Your task to perform on an android device: turn off location history Image 0: 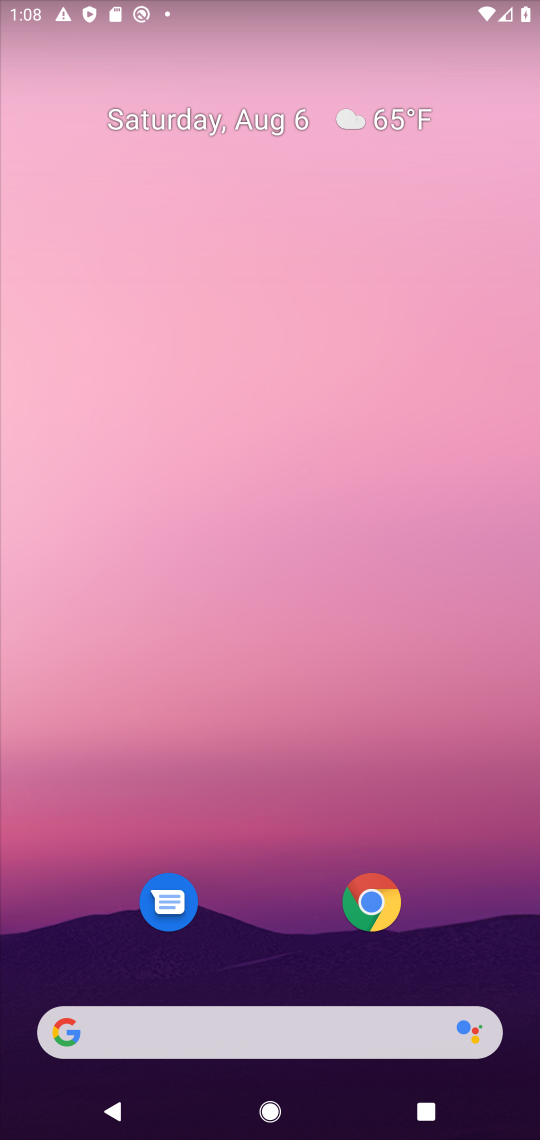
Step 0: drag from (267, 830) to (231, 40)
Your task to perform on an android device: turn off location history Image 1: 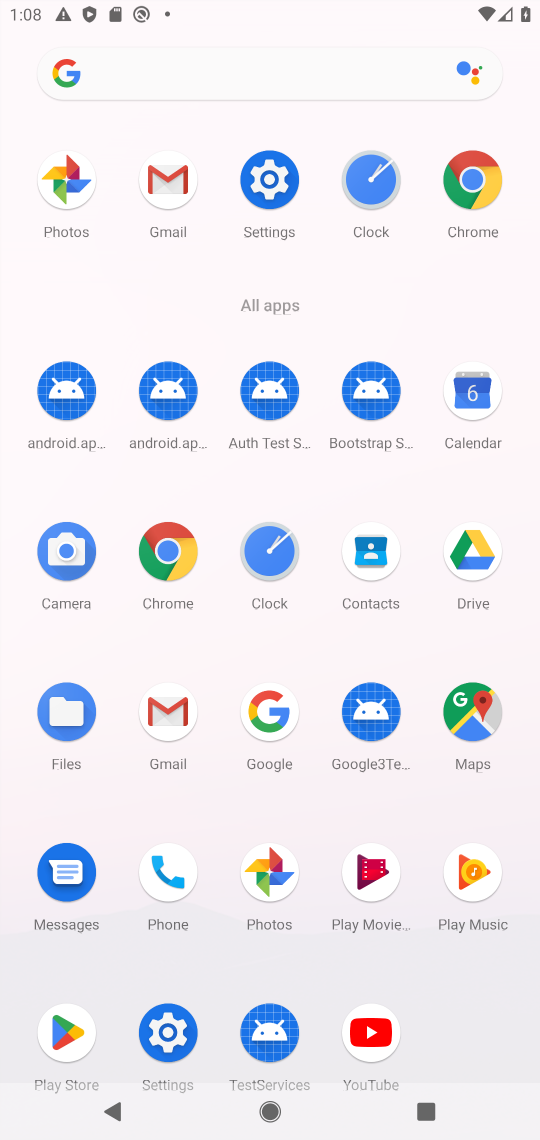
Step 1: click (471, 720)
Your task to perform on an android device: turn off location history Image 2: 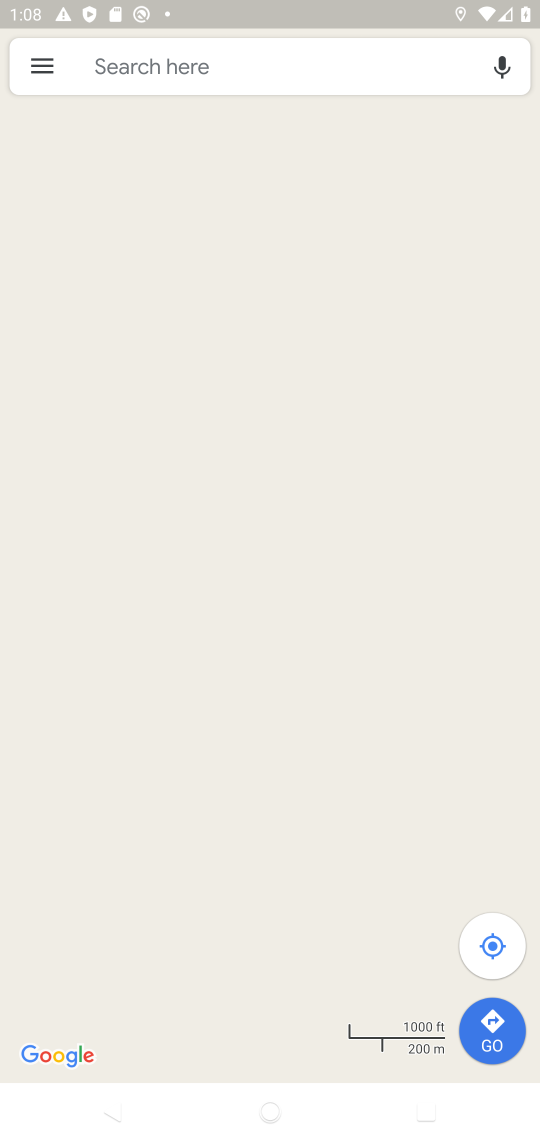
Step 2: click (37, 53)
Your task to perform on an android device: turn off location history Image 3: 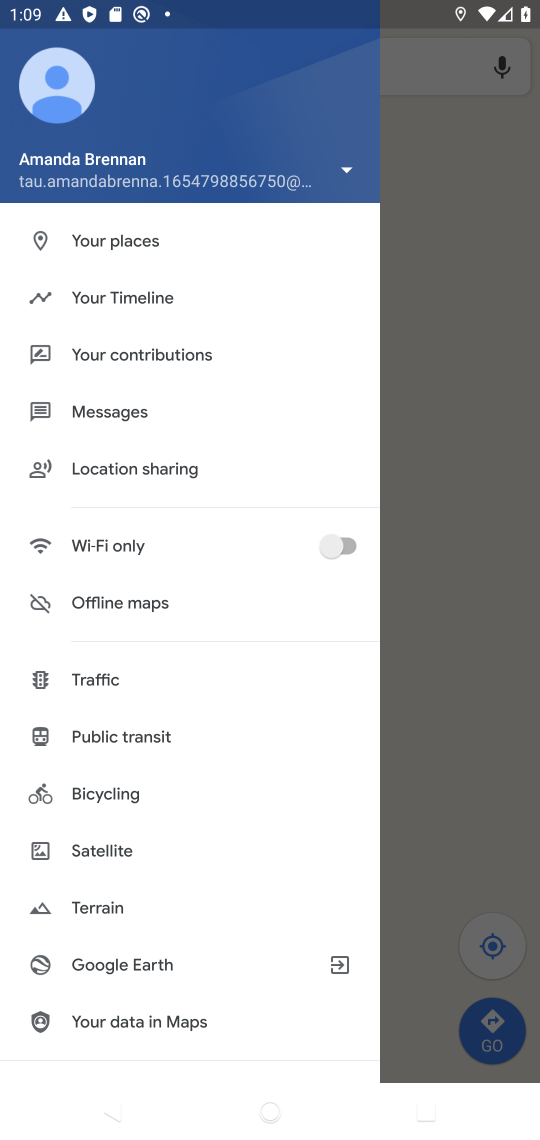
Step 3: click (127, 293)
Your task to perform on an android device: turn off location history Image 4: 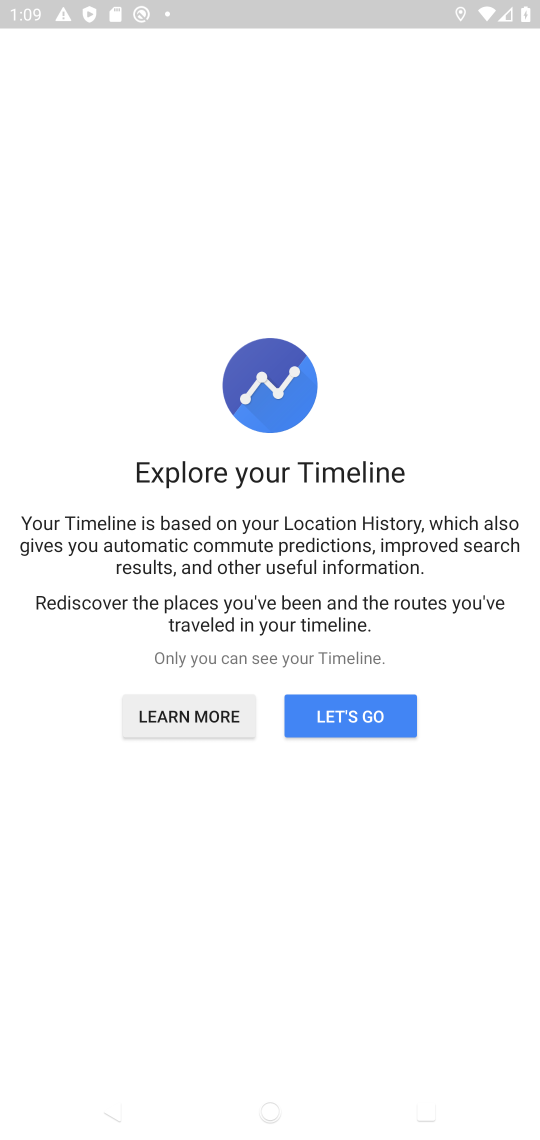
Step 4: click (339, 721)
Your task to perform on an android device: turn off location history Image 5: 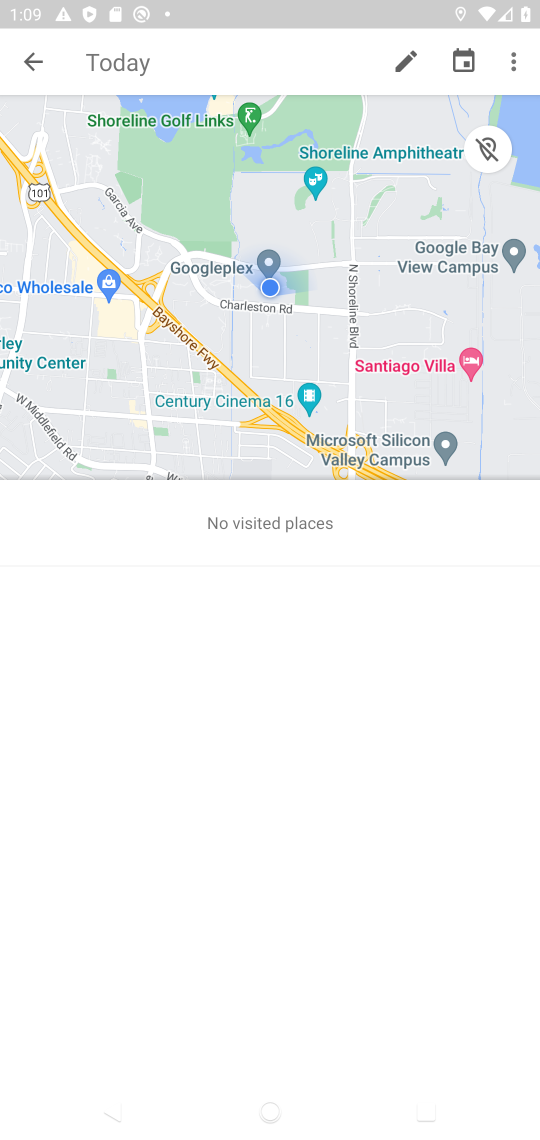
Step 5: click (520, 58)
Your task to perform on an android device: turn off location history Image 6: 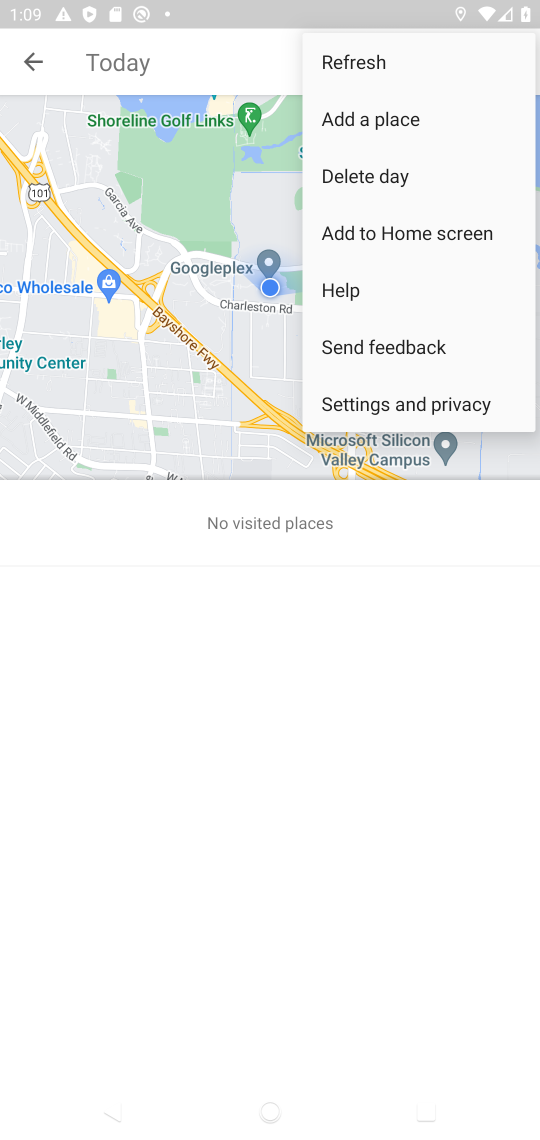
Step 6: click (364, 403)
Your task to perform on an android device: turn off location history Image 7: 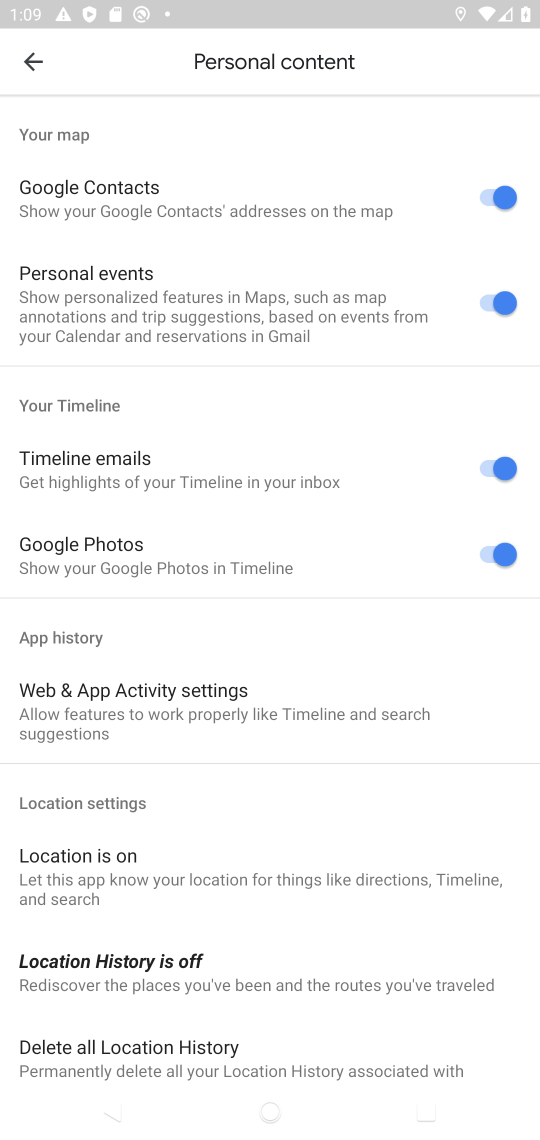
Step 7: click (100, 954)
Your task to perform on an android device: turn off location history Image 8: 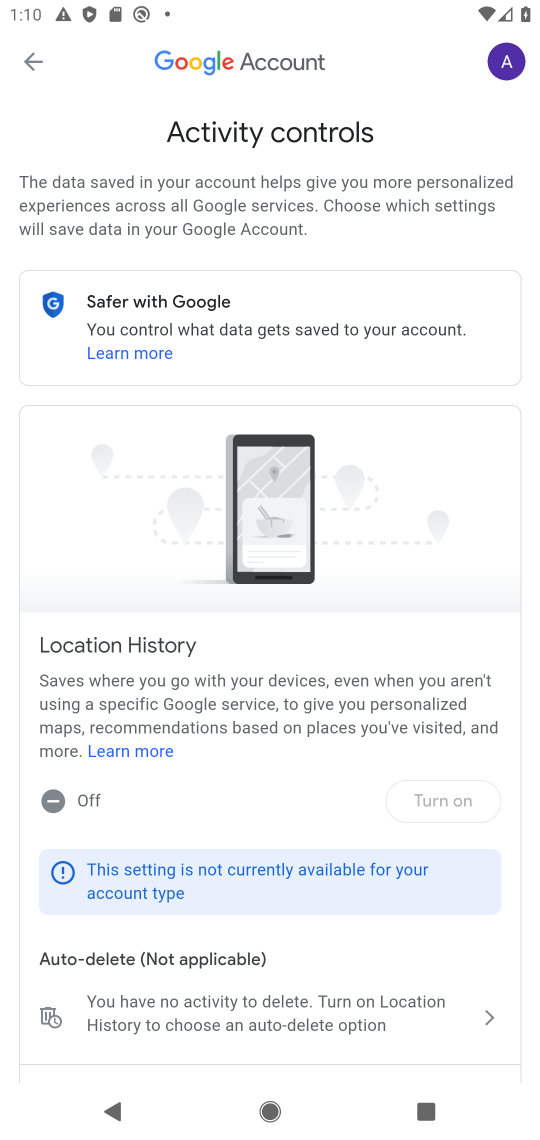
Step 8: task complete